Your task to perform on an android device: Search for seafood restaurants on Google Maps Image 0: 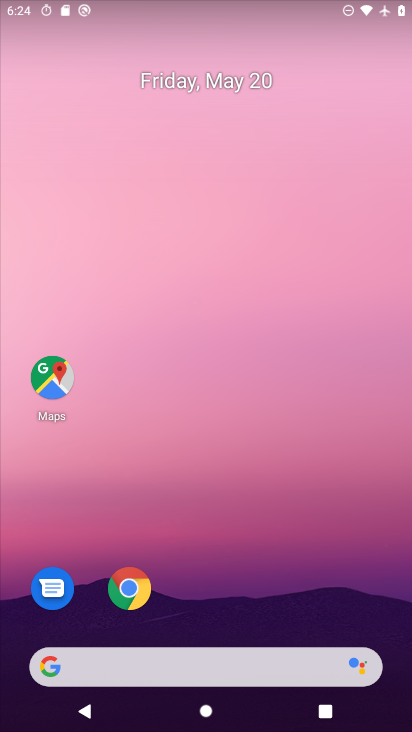
Step 0: click (54, 389)
Your task to perform on an android device: Search for seafood restaurants on Google Maps Image 1: 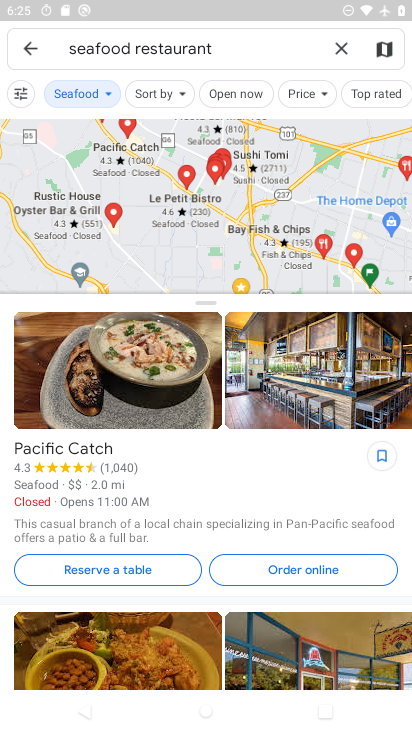
Step 1: click (350, 48)
Your task to perform on an android device: Search for seafood restaurants on Google Maps Image 2: 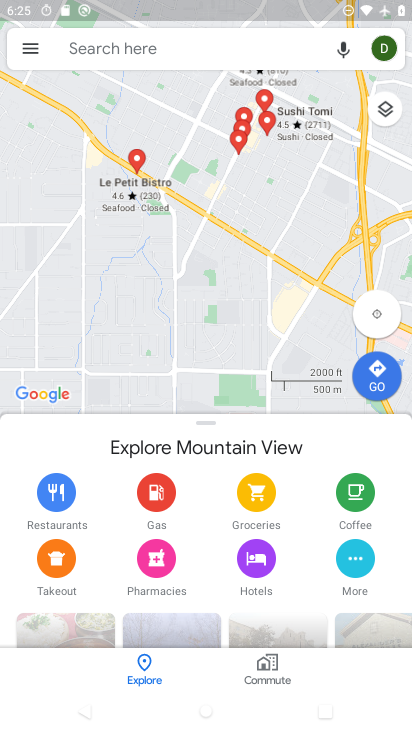
Step 2: task complete